Your task to perform on an android device: Open eBay Image 0: 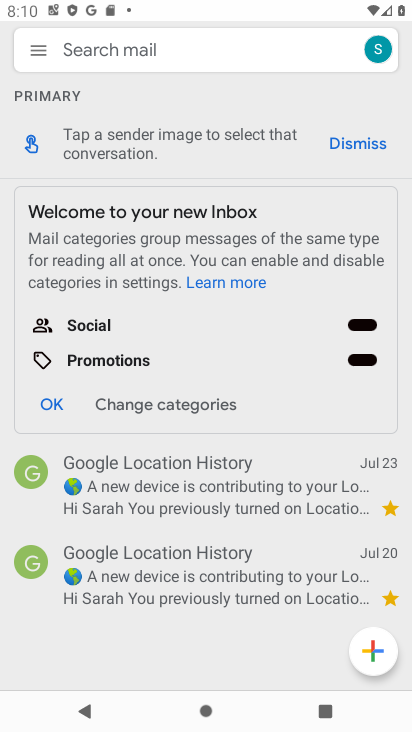
Step 0: press home button
Your task to perform on an android device: Open eBay Image 1: 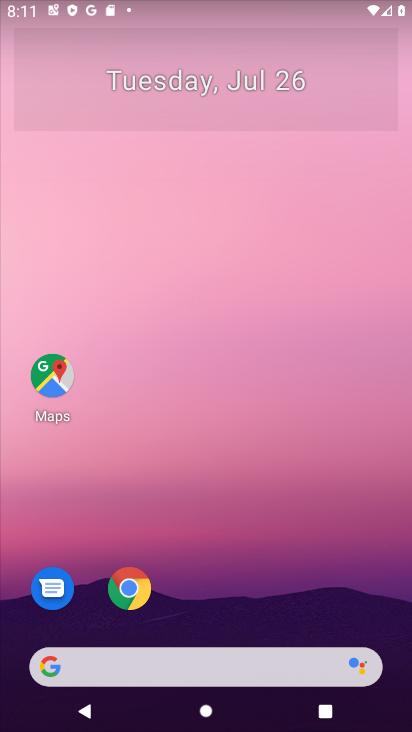
Step 1: click (45, 661)
Your task to perform on an android device: Open eBay Image 2: 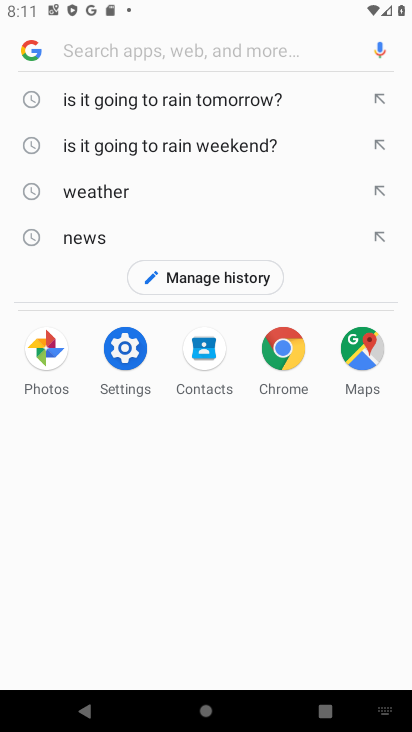
Step 2: type " eBay"
Your task to perform on an android device: Open eBay Image 3: 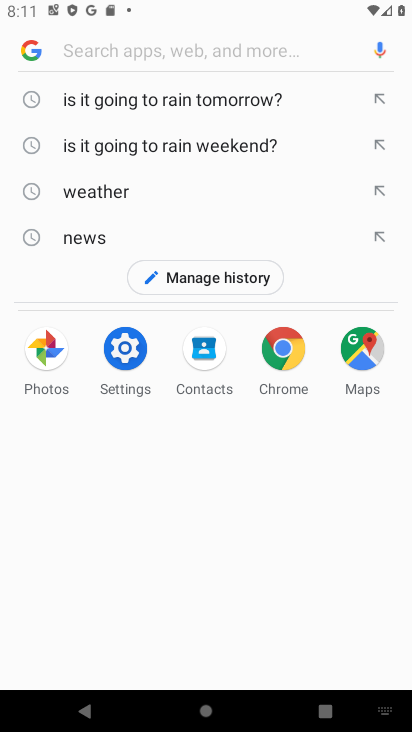
Step 3: click (71, 49)
Your task to perform on an android device: Open eBay Image 4: 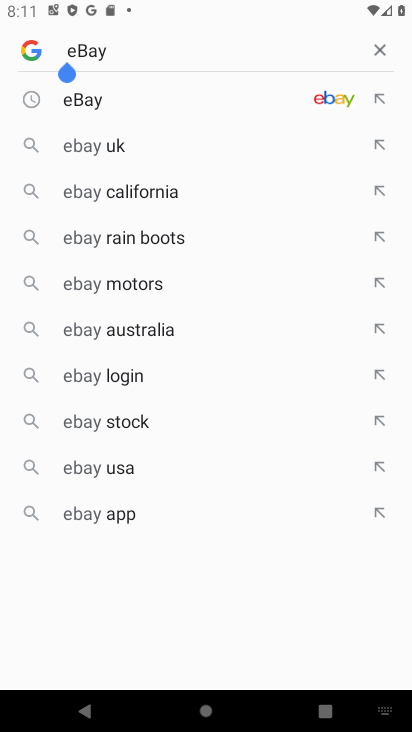
Step 4: click (331, 100)
Your task to perform on an android device: Open eBay Image 5: 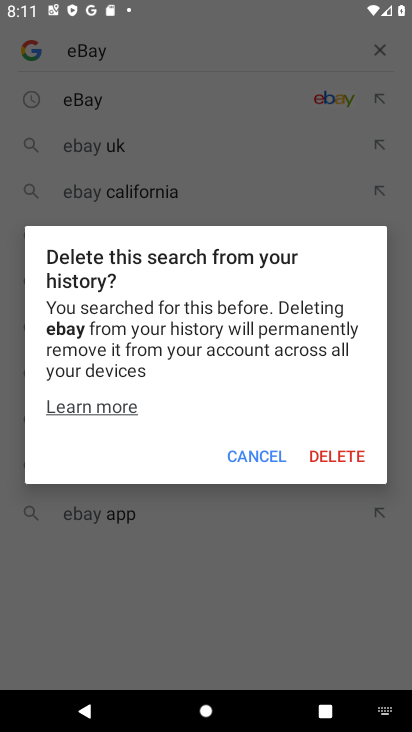
Step 5: click (265, 452)
Your task to perform on an android device: Open eBay Image 6: 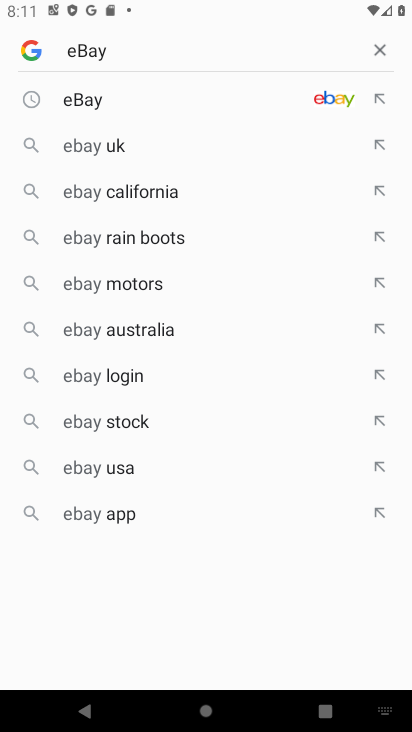
Step 6: click (327, 98)
Your task to perform on an android device: Open eBay Image 7: 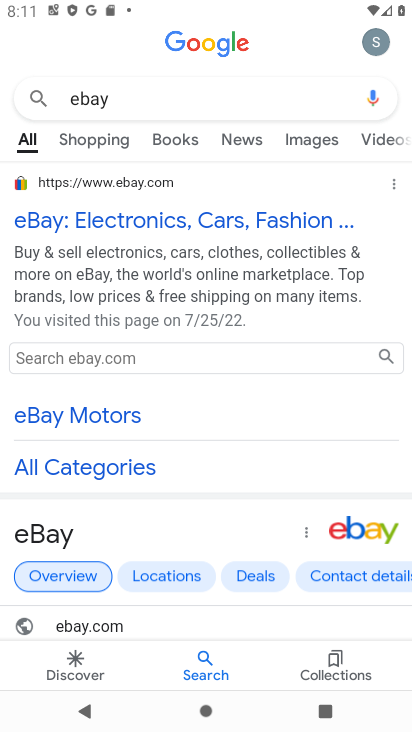
Step 7: click (73, 213)
Your task to perform on an android device: Open eBay Image 8: 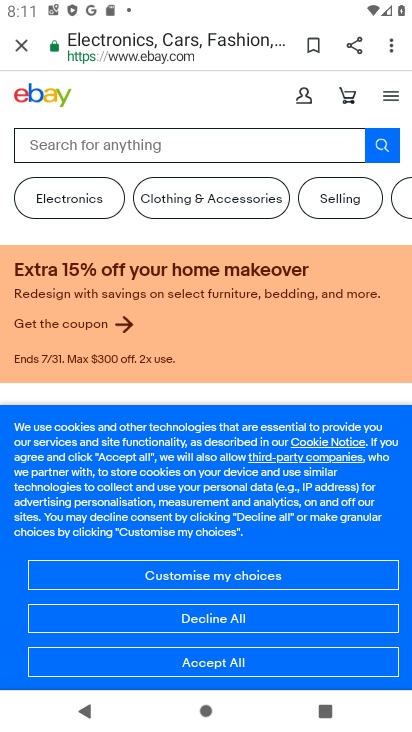
Step 8: task complete